Your task to perform on an android device: Open calendar and show me the fourth week of next month Image 0: 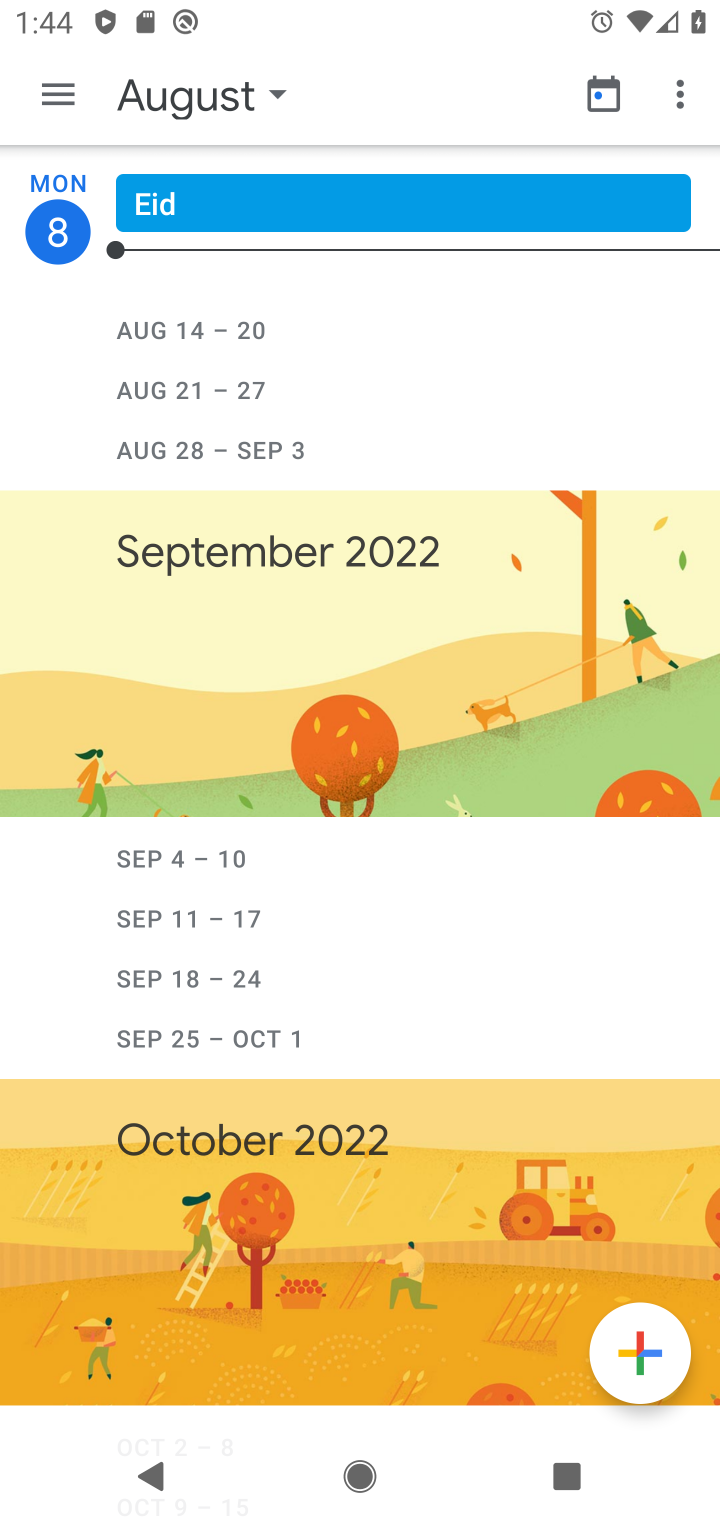
Step 0: press home button
Your task to perform on an android device: Open calendar and show me the fourth week of next month Image 1: 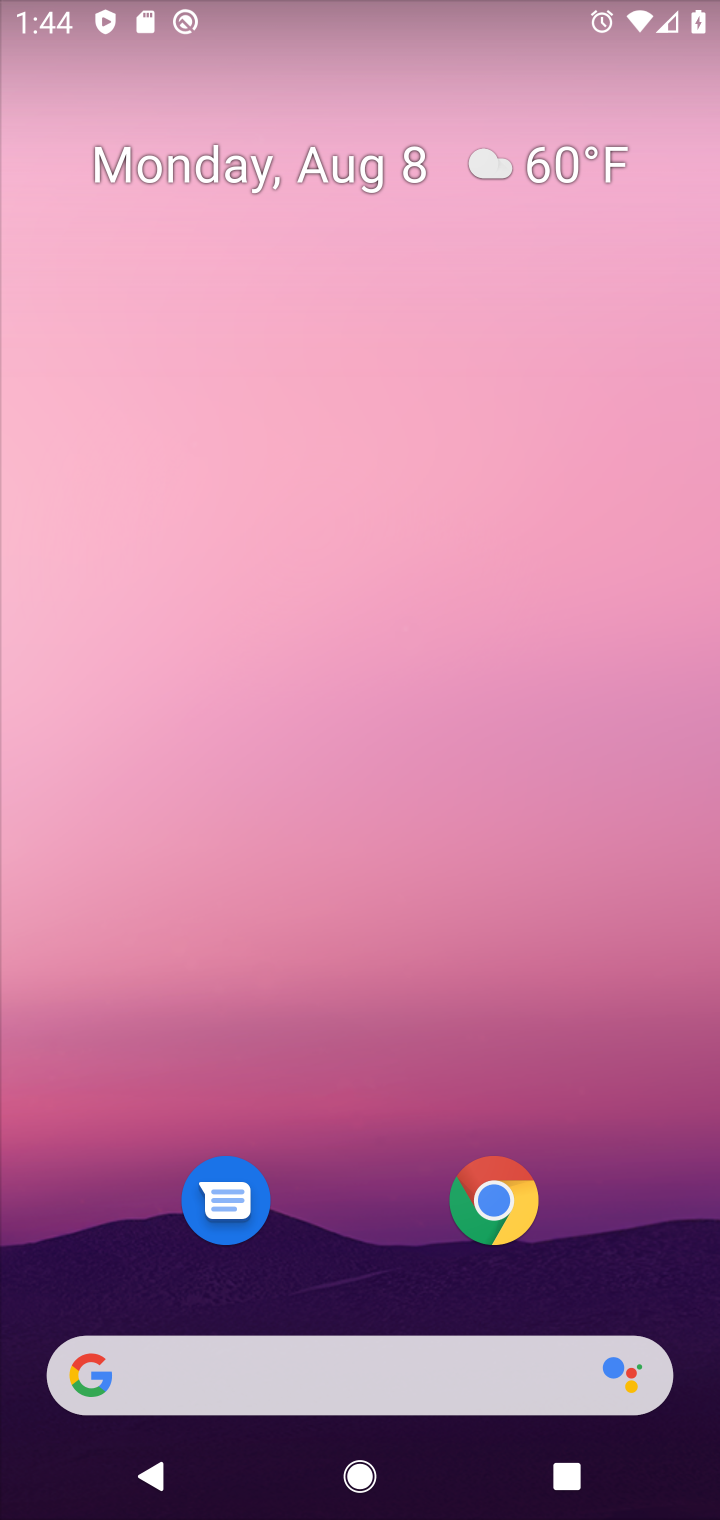
Step 1: click (538, 169)
Your task to perform on an android device: Open calendar and show me the fourth week of next month Image 2: 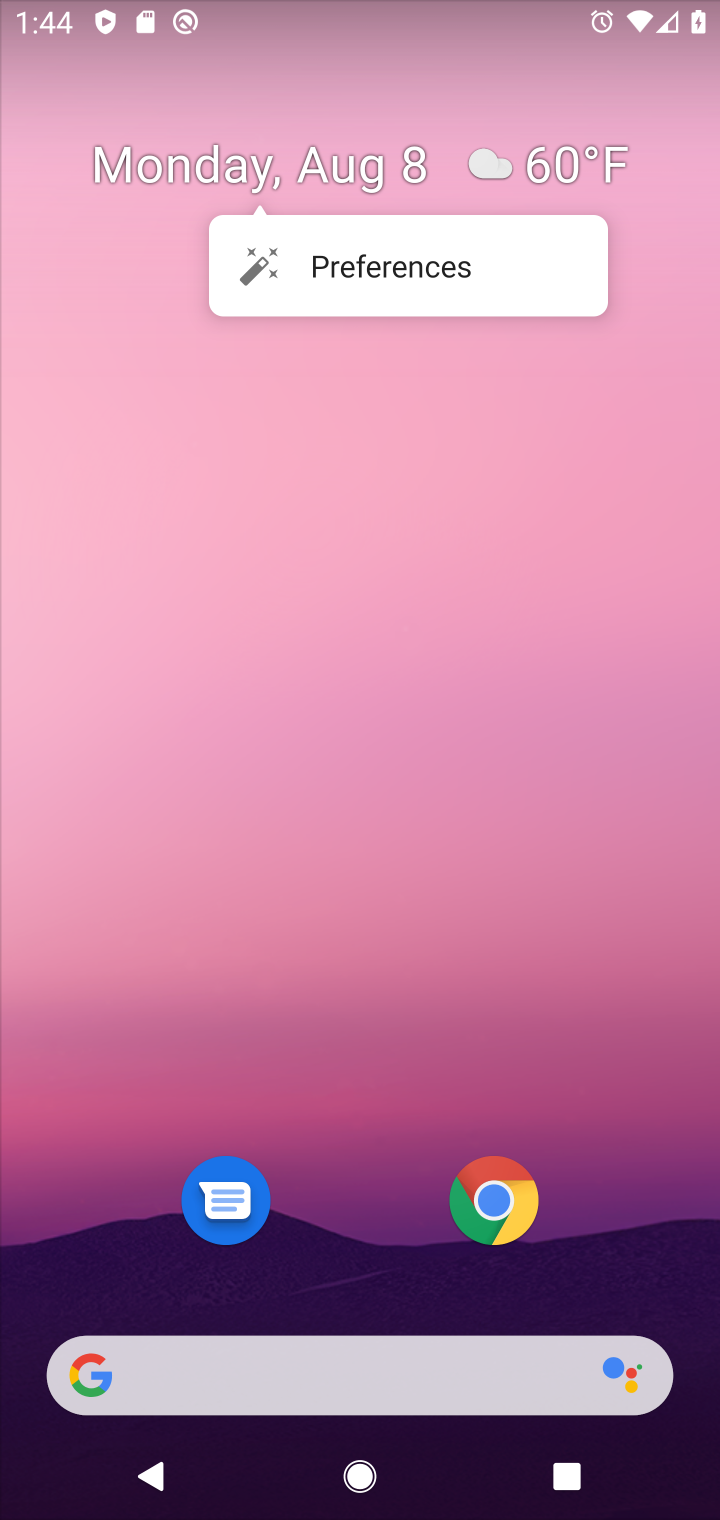
Step 2: click (551, 165)
Your task to perform on an android device: Open calendar and show me the fourth week of next month Image 3: 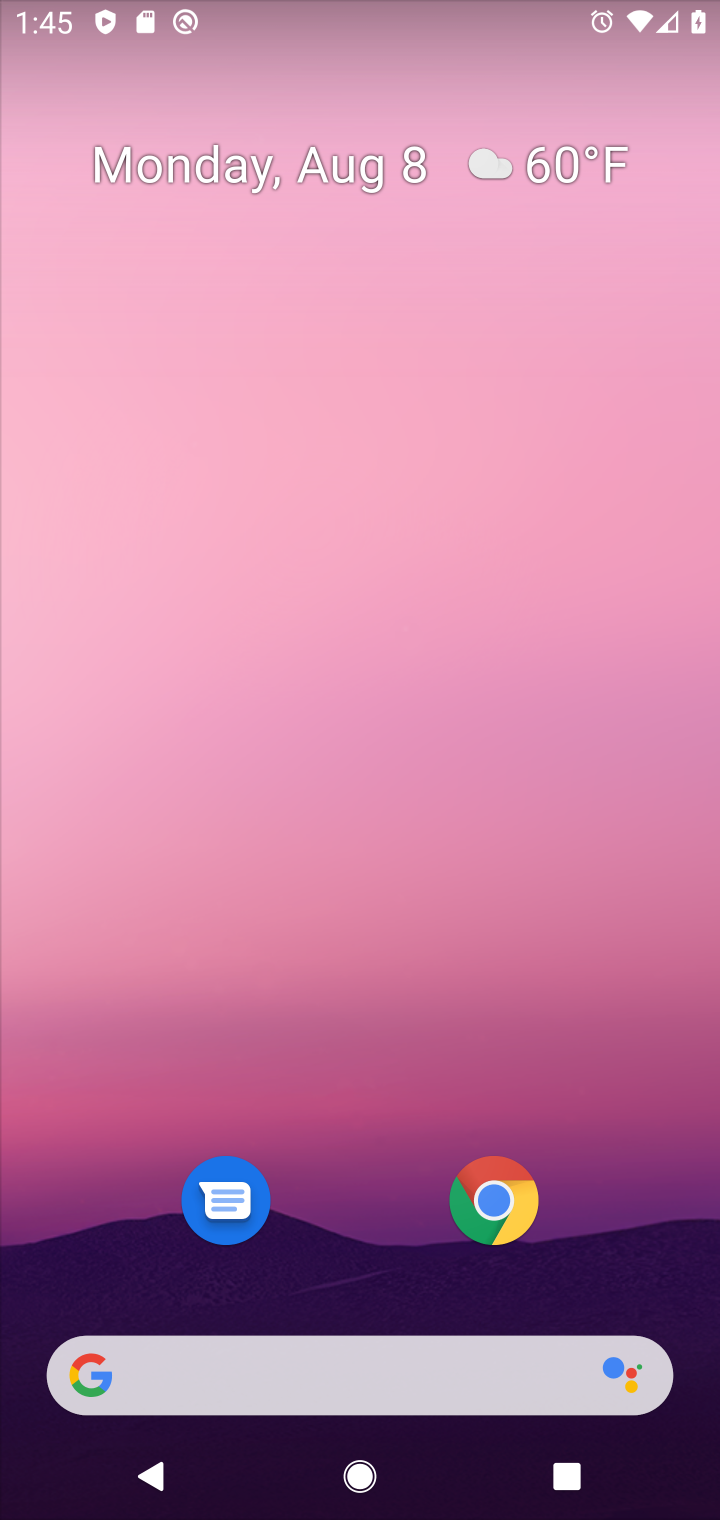
Step 3: drag from (383, 1275) to (427, 158)
Your task to perform on an android device: Open calendar and show me the fourth week of next month Image 4: 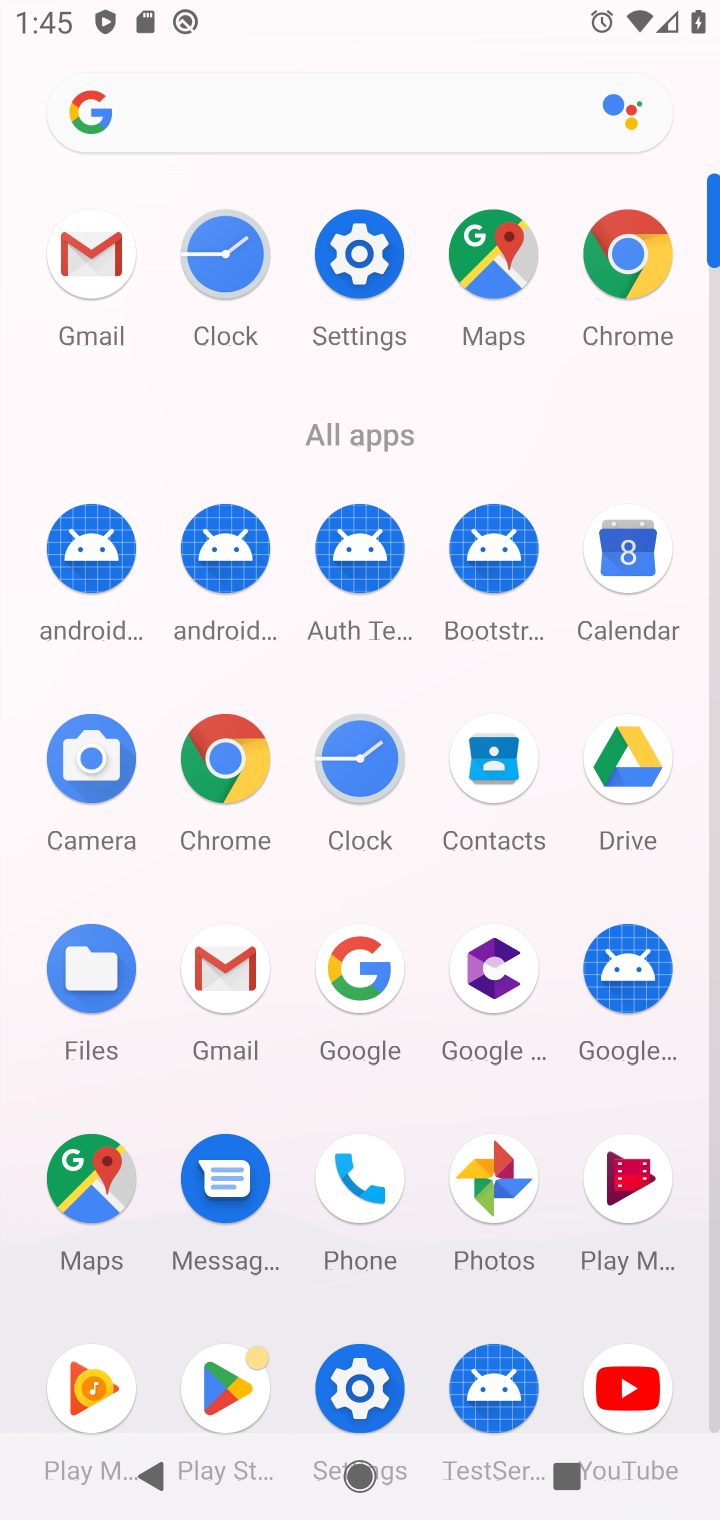
Step 4: click (626, 541)
Your task to perform on an android device: Open calendar and show me the fourth week of next month Image 5: 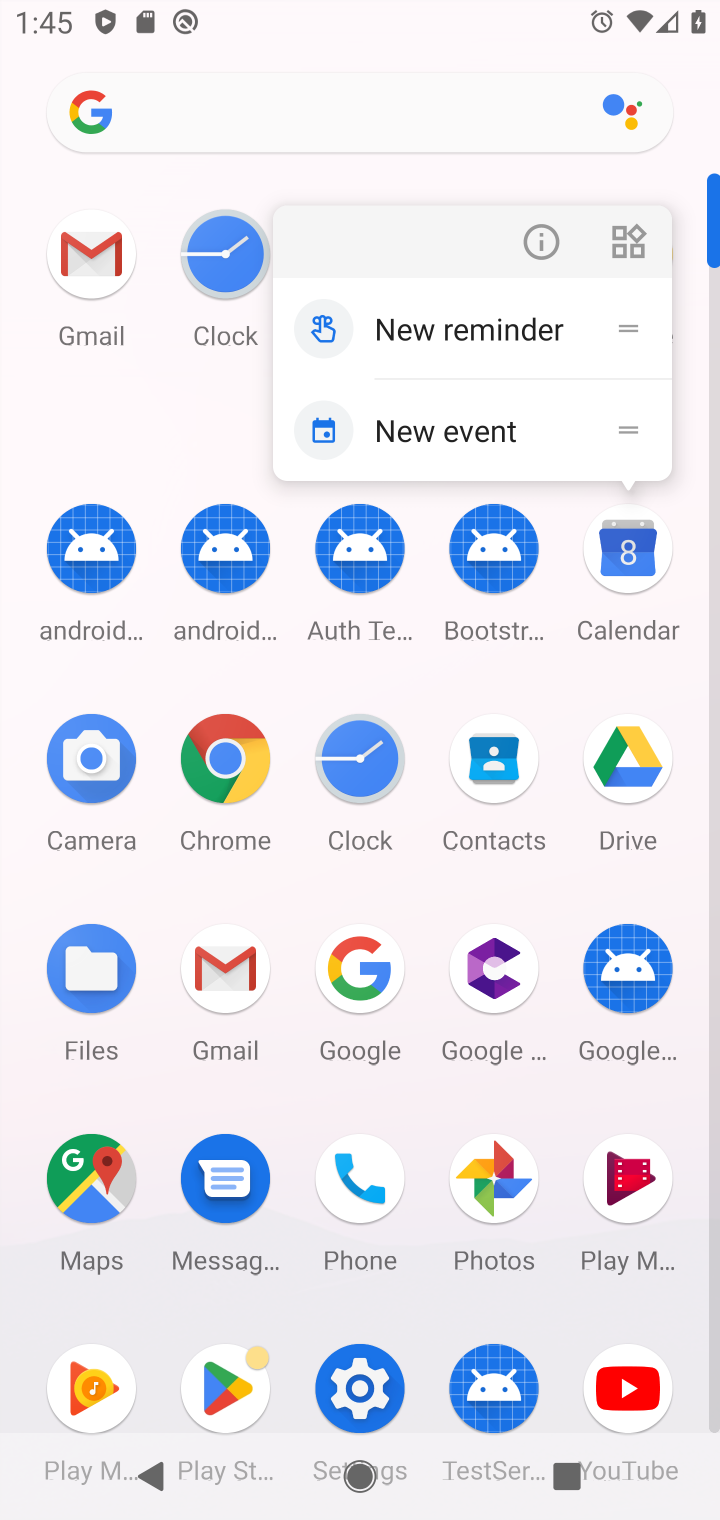
Step 5: click (626, 541)
Your task to perform on an android device: Open calendar and show me the fourth week of next month Image 6: 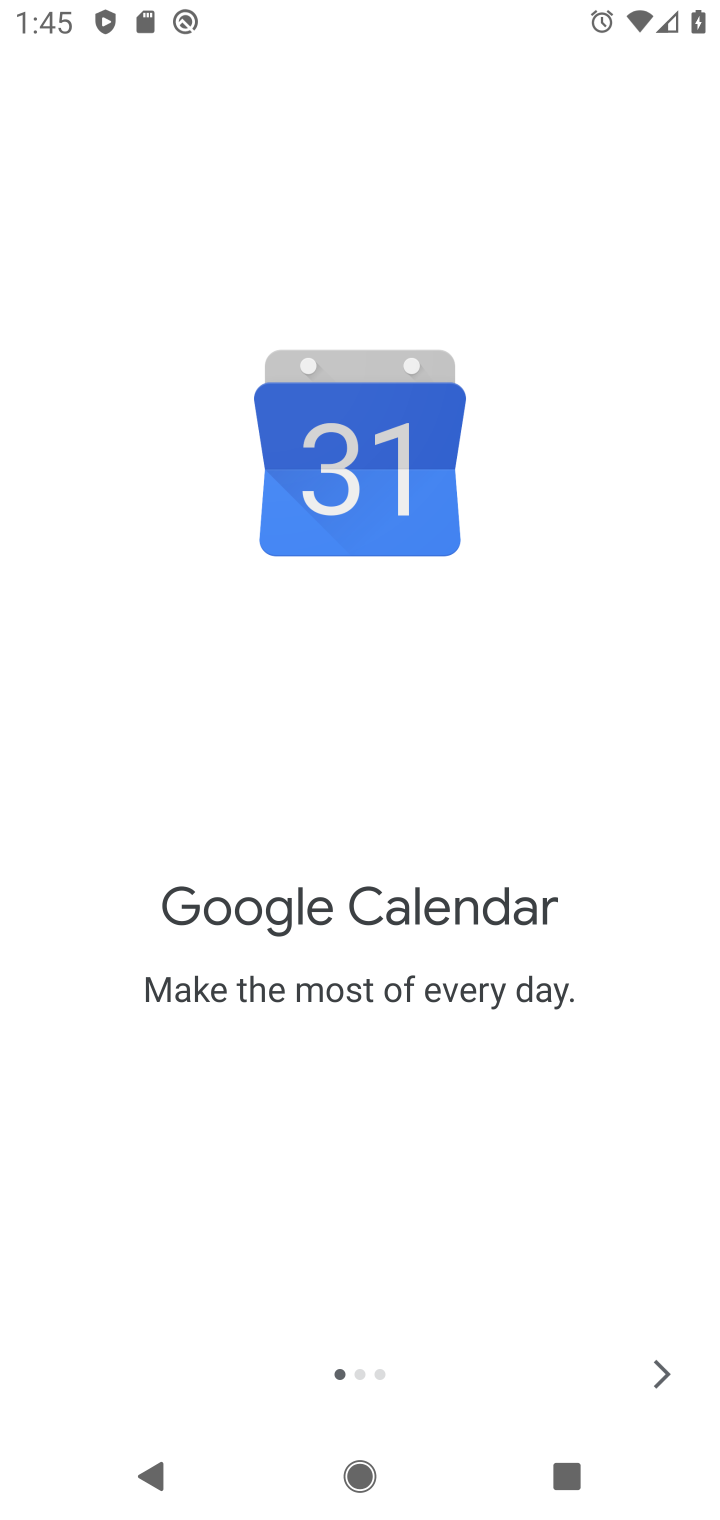
Step 6: click (665, 1369)
Your task to perform on an android device: Open calendar and show me the fourth week of next month Image 7: 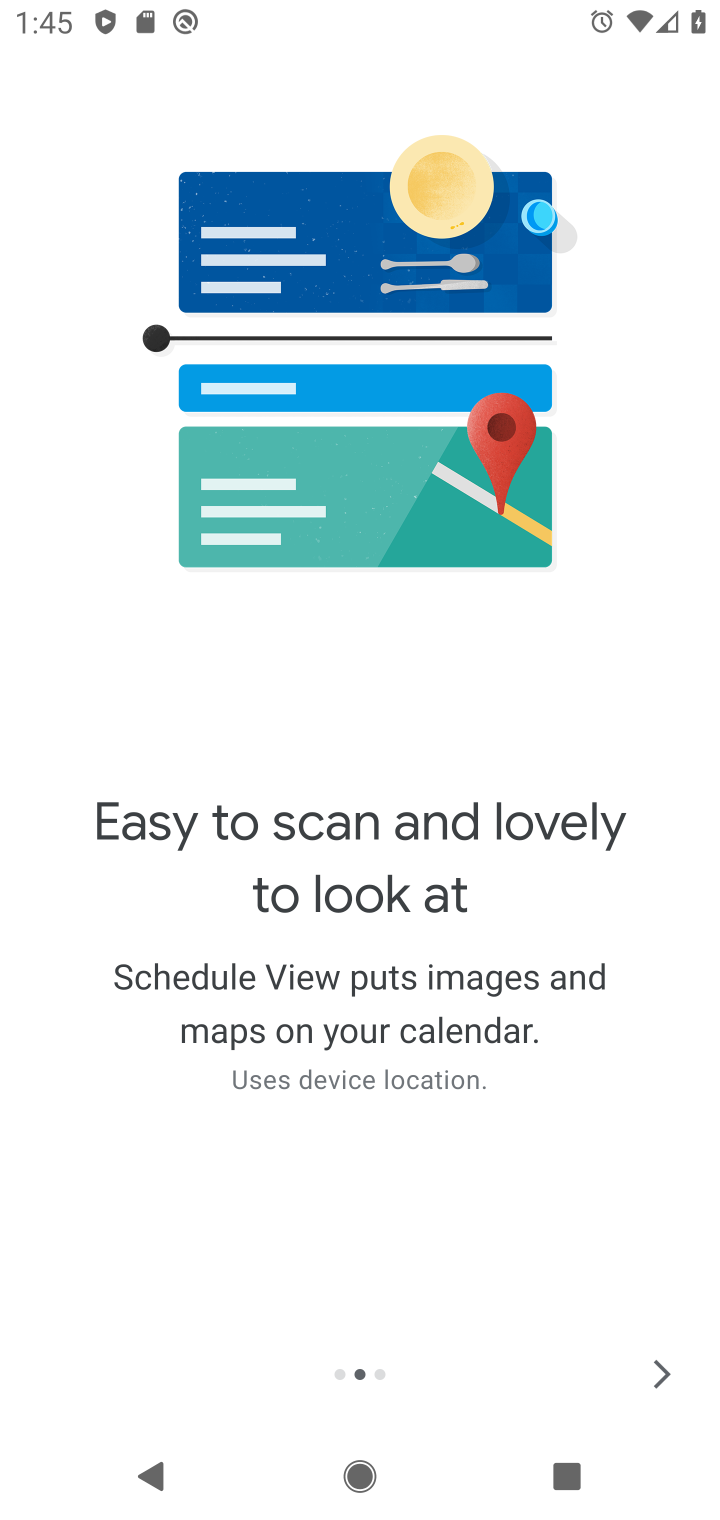
Step 7: click (656, 1376)
Your task to perform on an android device: Open calendar and show me the fourth week of next month Image 8: 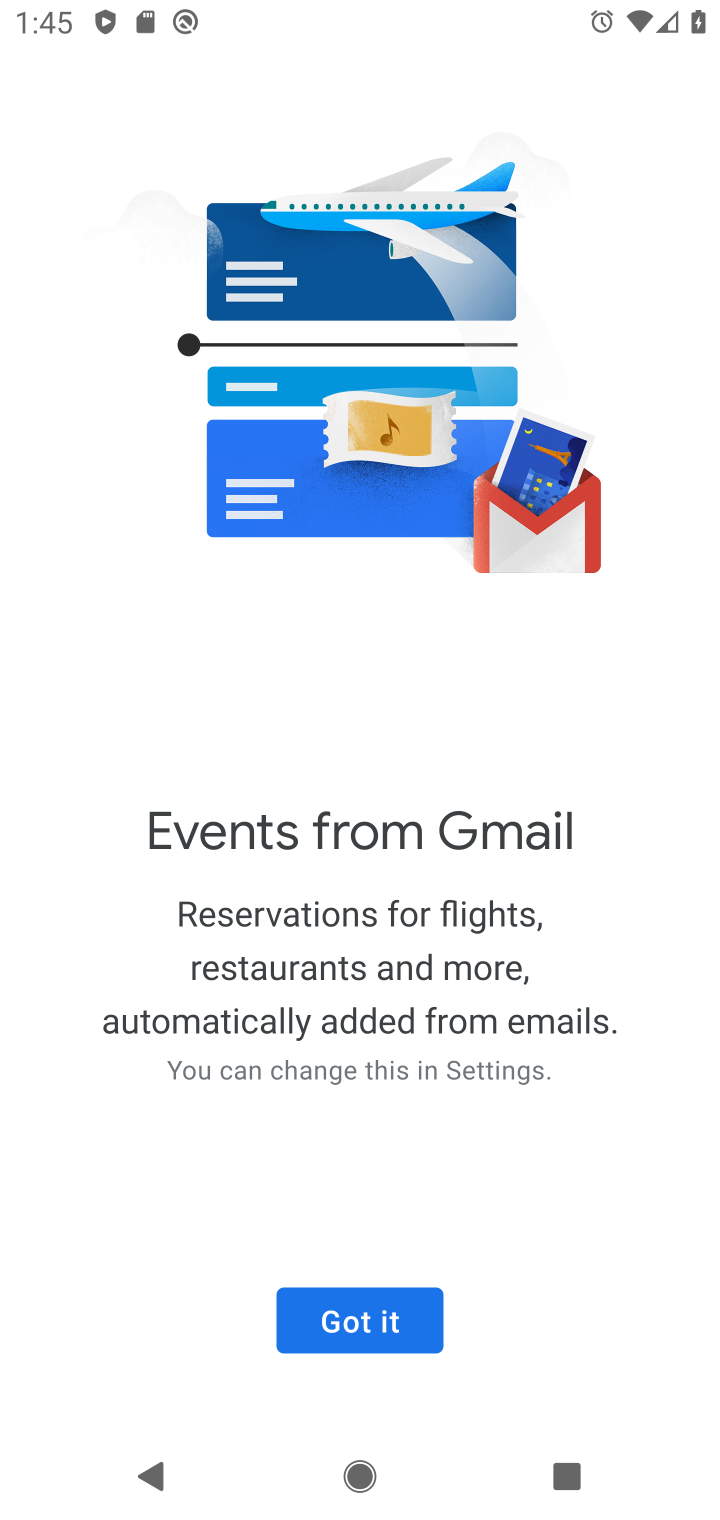
Step 8: click (370, 1294)
Your task to perform on an android device: Open calendar and show me the fourth week of next month Image 9: 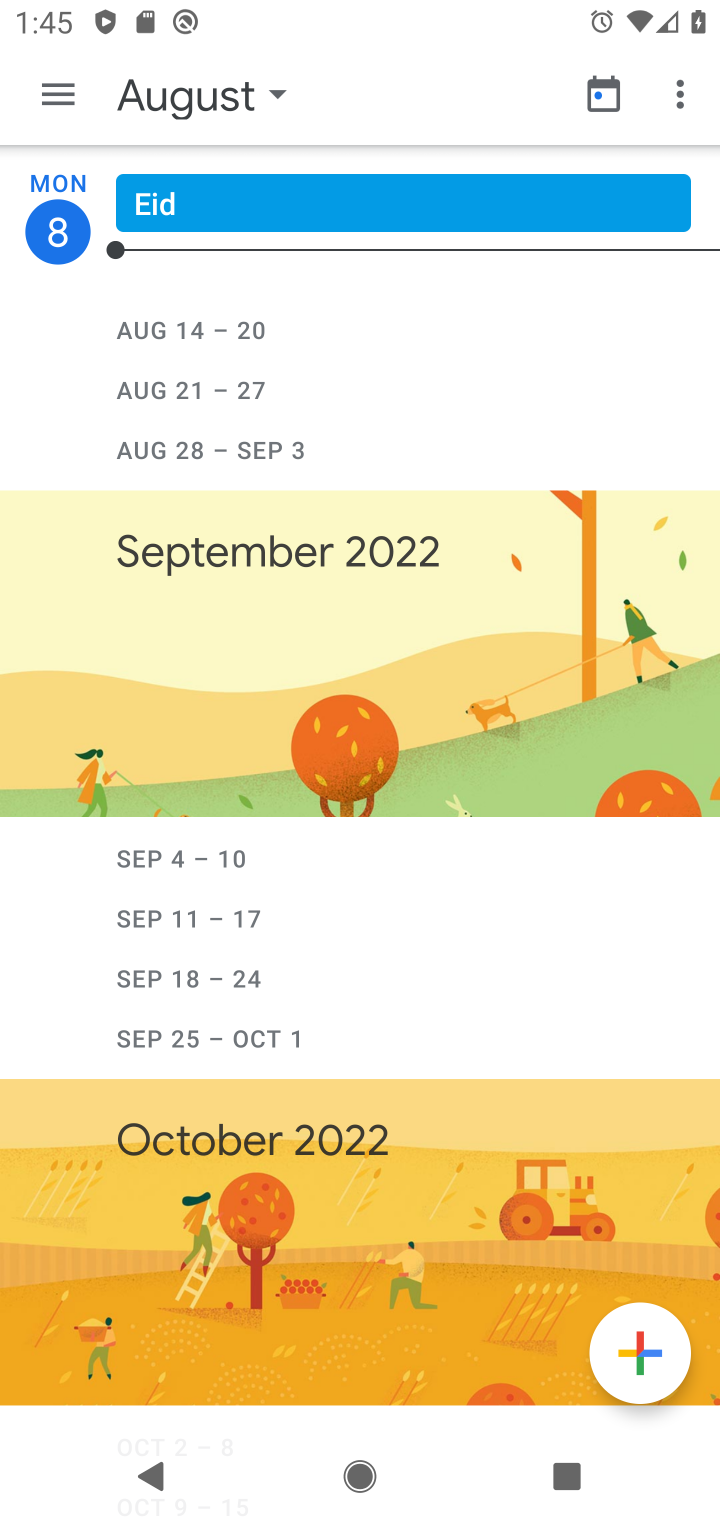
Step 9: click (276, 93)
Your task to perform on an android device: Open calendar and show me the fourth week of next month Image 10: 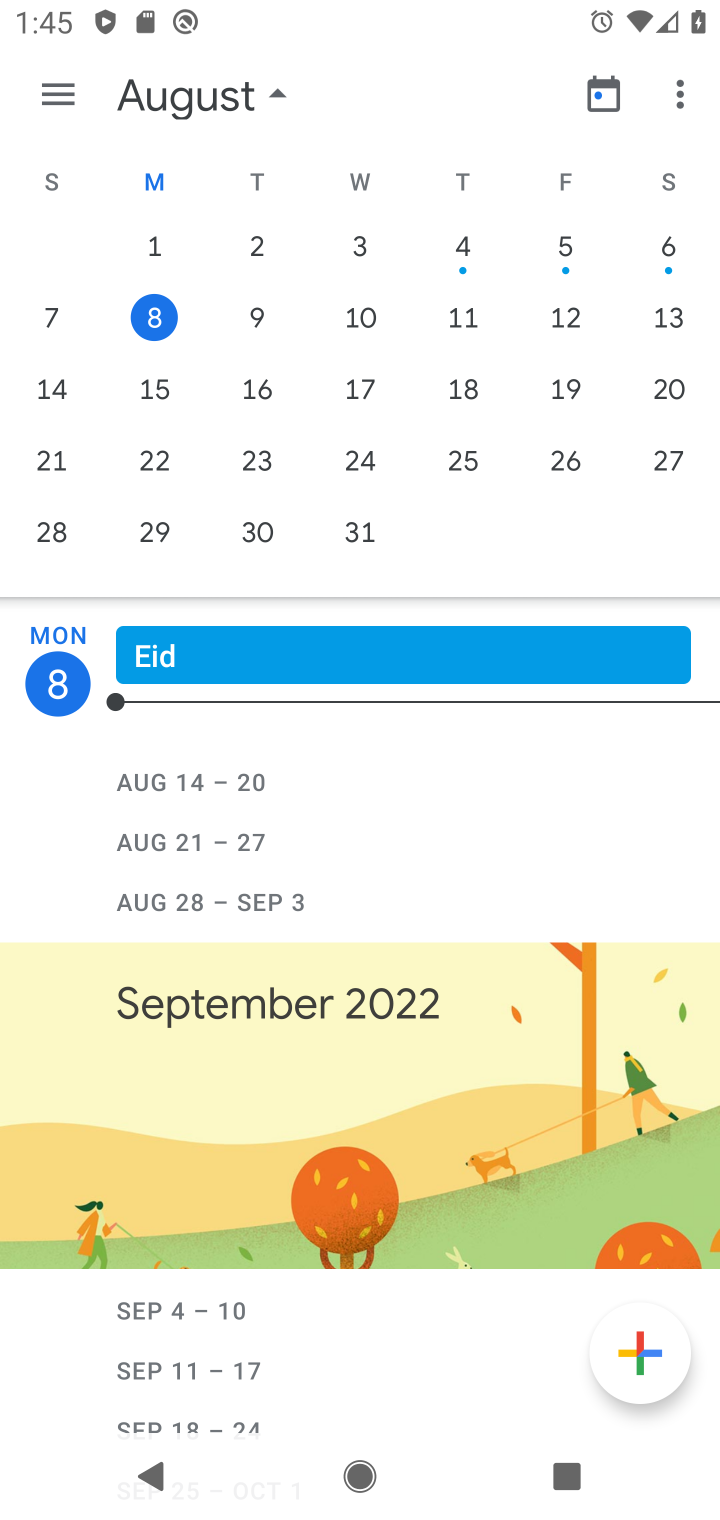
Step 10: drag from (631, 421) to (17, 687)
Your task to perform on an android device: Open calendar and show me the fourth week of next month Image 11: 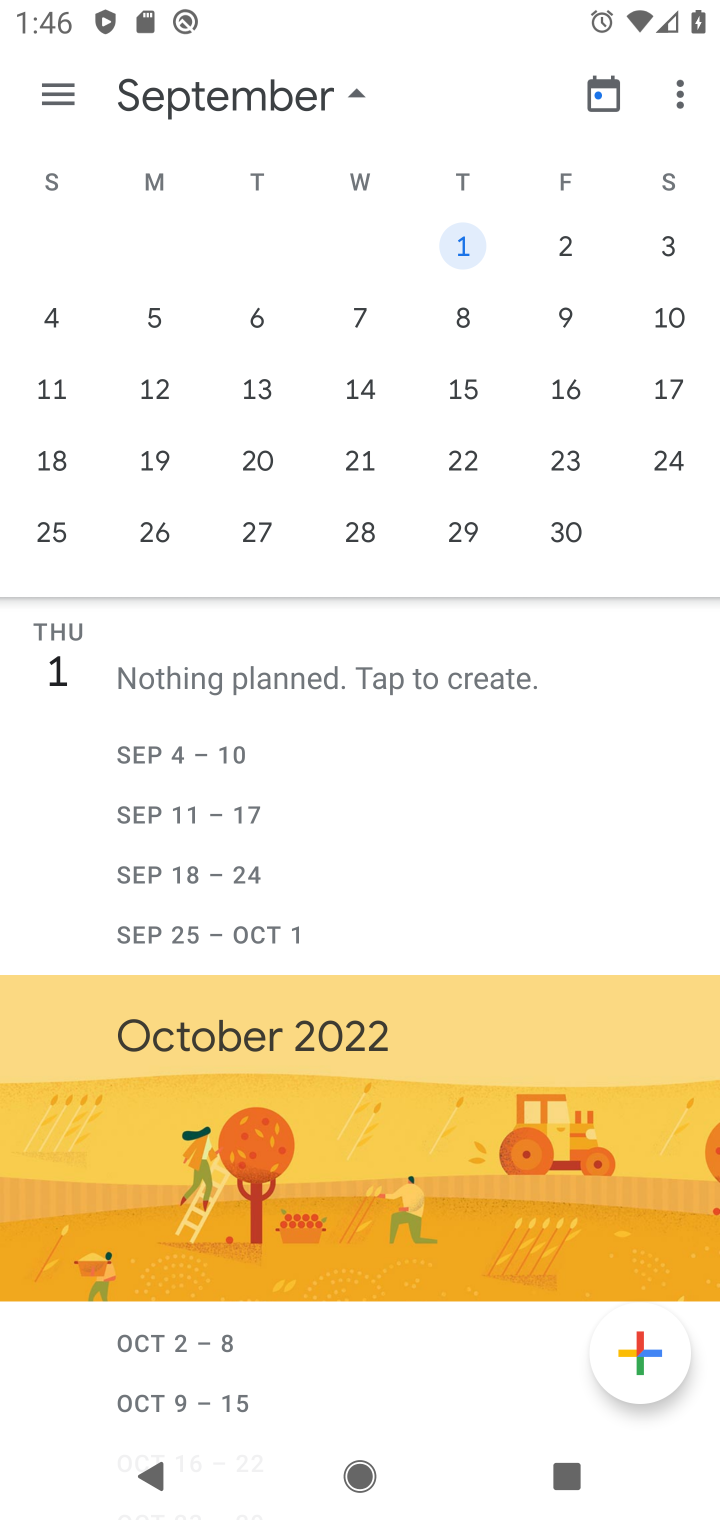
Step 11: click (56, 525)
Your task to perform on an android device: Open calendar and show me the fourth week of next month Image 12: 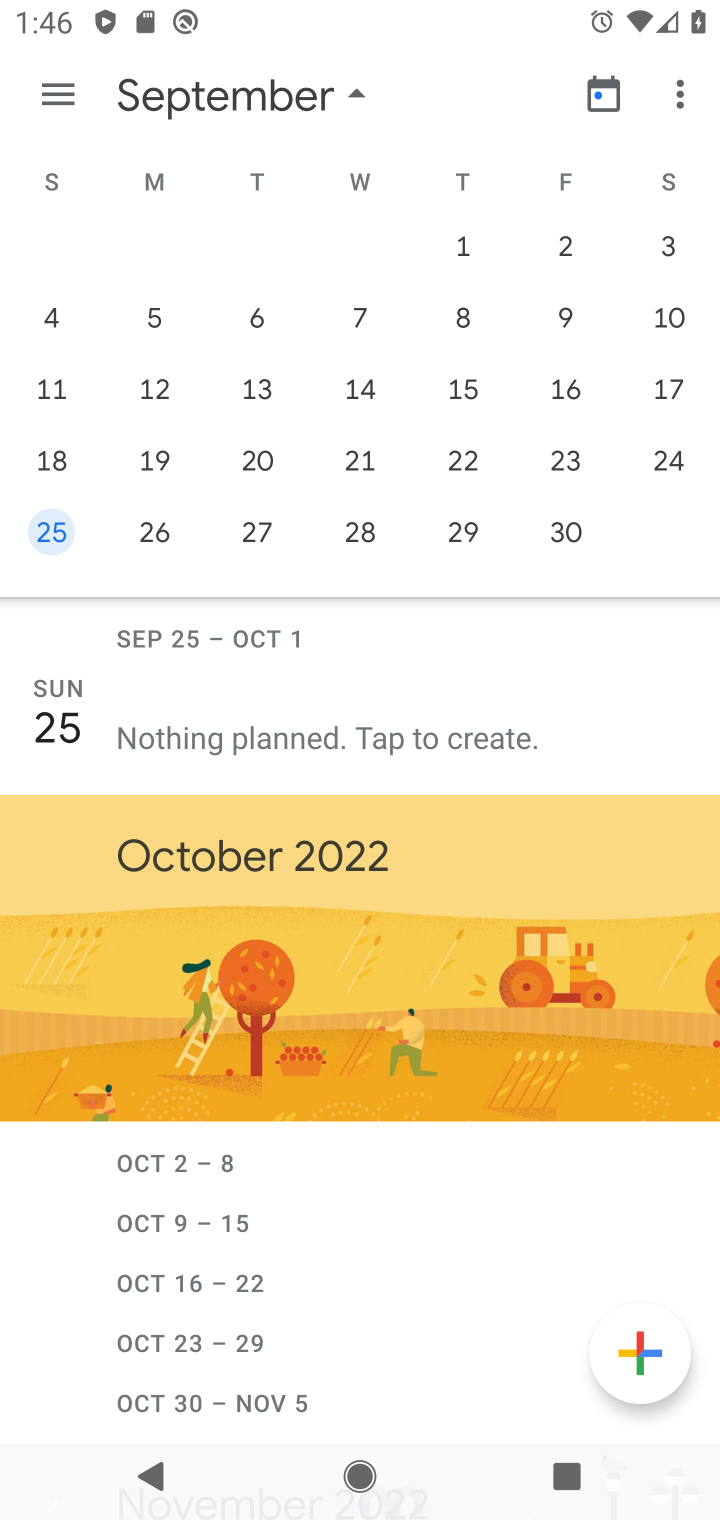
Step 12: click (50, 86)
Your task to perform on an android device: Open calendar and show me the fourth week of next month Image 13: 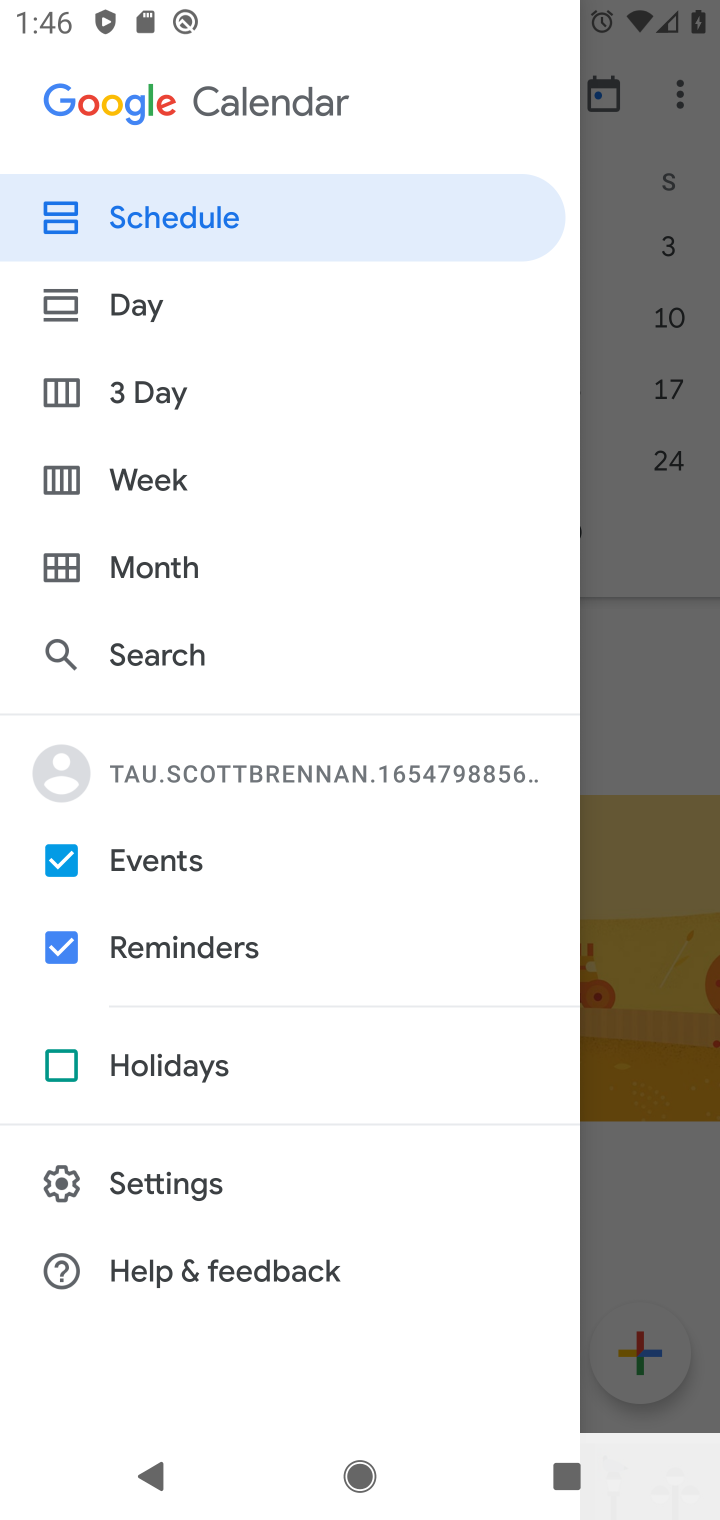
Step 13: click (144, 469)
Your task to perform on an android device: Open calendar and show me the fourth week of next month Image 14: 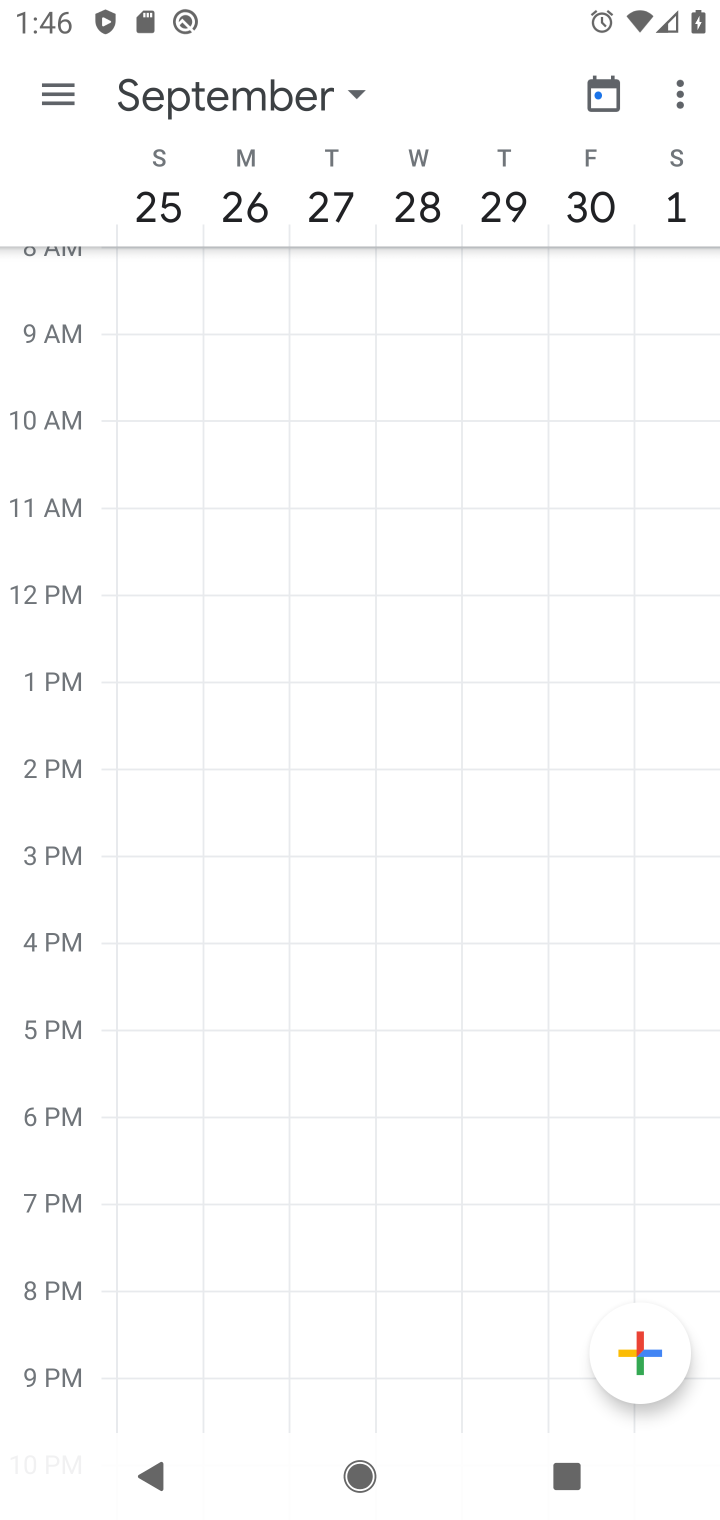
Step 14: click (137, 222)
Your task to perform on an android device: Open calendar and show me the fourth week of next month Image 15: 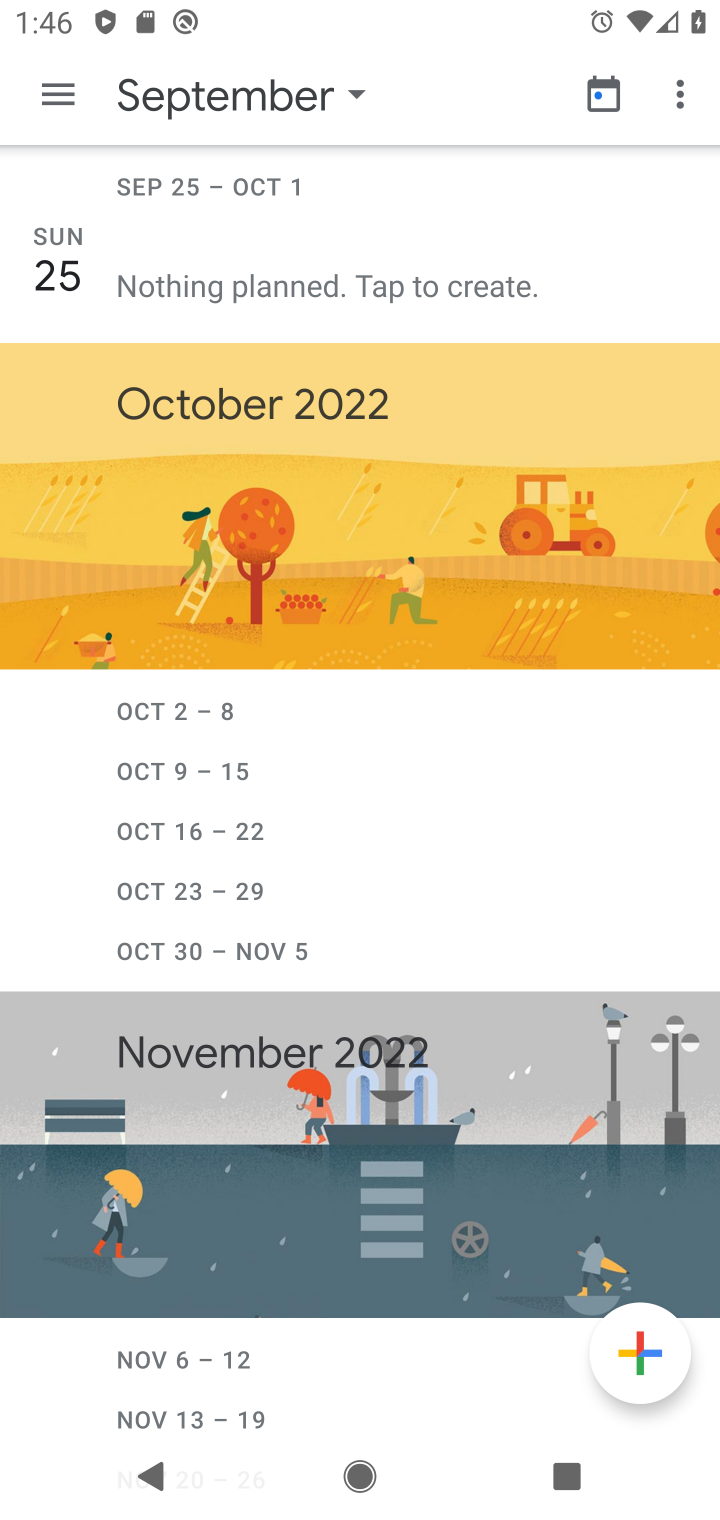
Step 15: task complete